Your task to perform on an android device: Show me popular videos on Youtube Image 0: 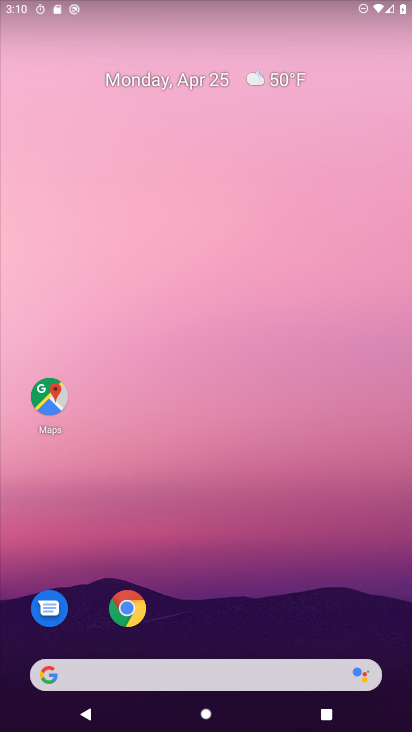
Step 0: drag from (189, 623) to (240, 258)
Your task to perform on an android device: Show me popular videos on Youtube Image 1: 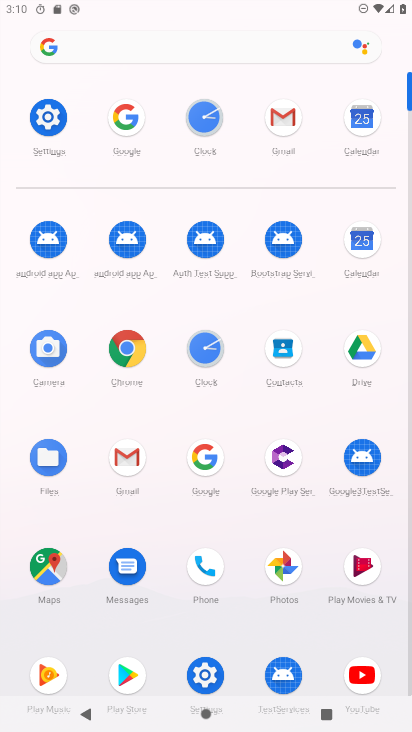
Step 1: click (357, 677)
Your task to perform on an android device: Show me popular videos on Youtube Image 2: 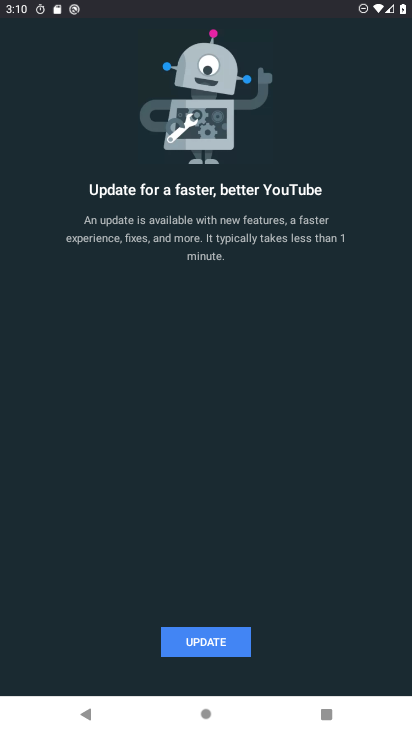
Step 2: click (226, 636)
Your task to perform on an android device: Show me popular videos on Youtube Image 3: 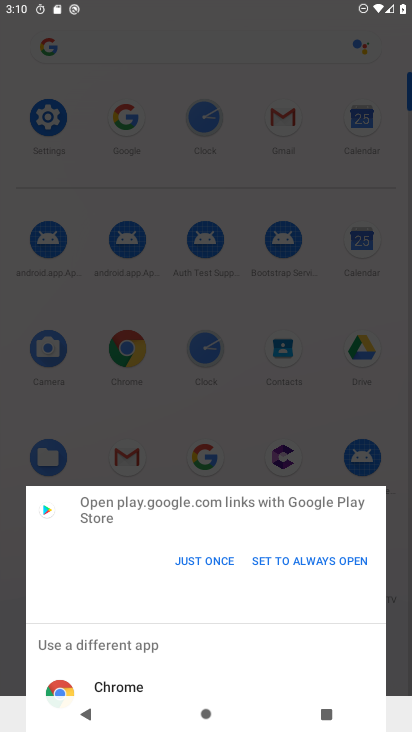
Step 3: click (207, 562)
Your task to perform on an android device: Show me popular videos on Youtube Image 4: 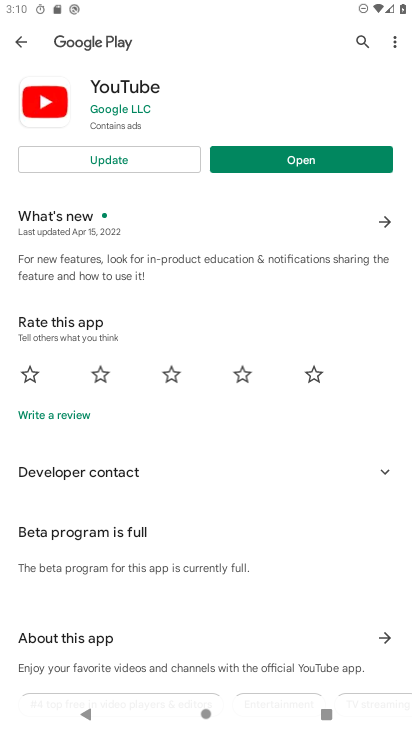
Step 4: click (56, 166)
Your task to perform on an android device: Show me popular videos on Youtube Image 5: 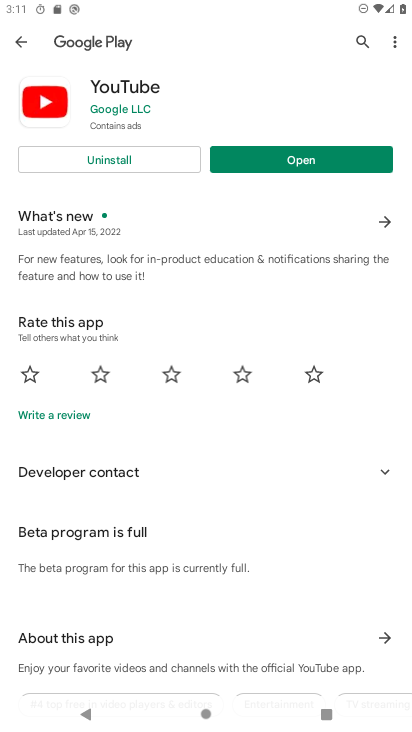
Step 5: click (244, 160)
Your task to perform on an android device: Show me popular videos on Youtube Image 6: 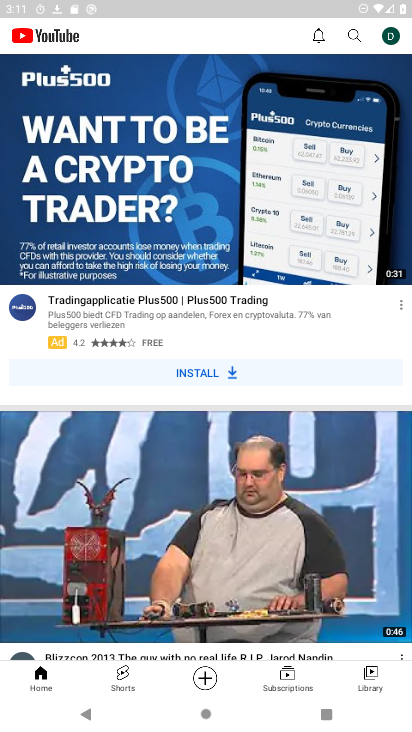
Step 6: click (346, 31)
Your task to perform on an android device: Show me popular videos on Youtube Image 7: 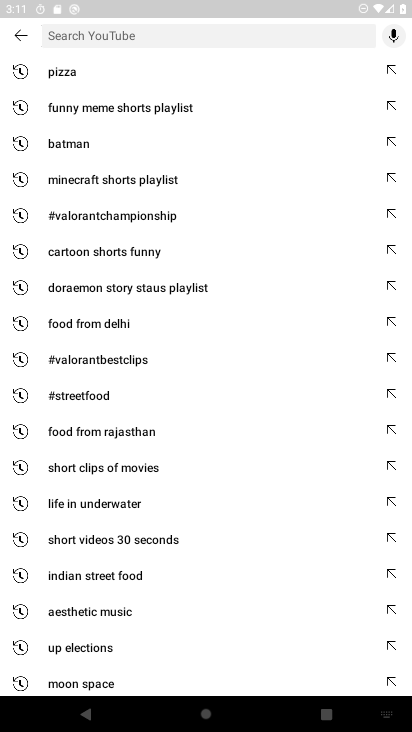
Step 7: type "popular videos"
Your task to perform on an android device: Show me popular videos on Youtube Image 8: 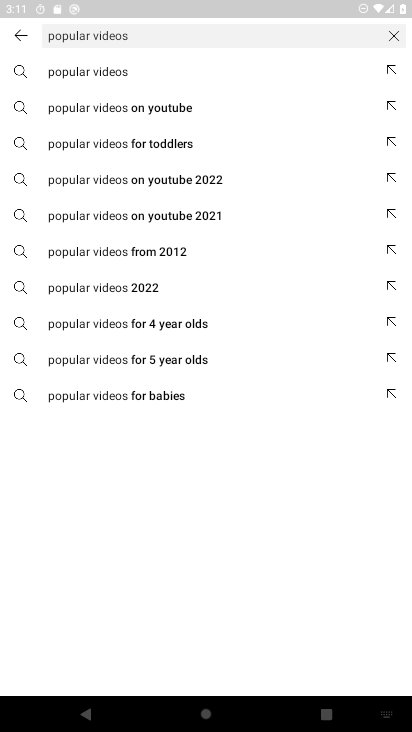
Step 8: click (152, 72)
Your task to perform on an android device: Show me popular videos on Youtube Image 9: 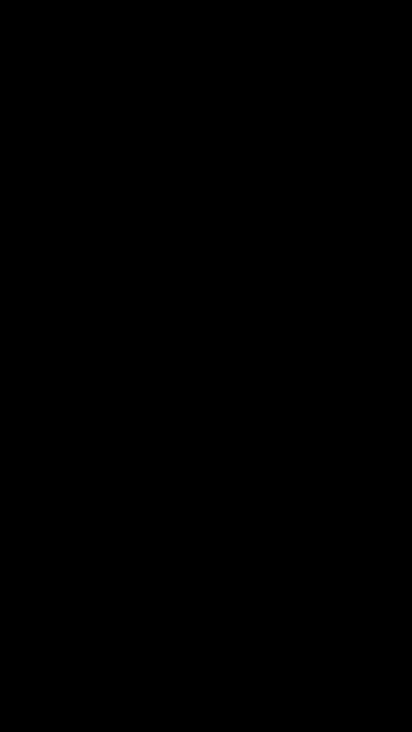
Step 9: task complete